Your task to perform on an android device: Search for seafood restaurants on Google Maps Image 0: 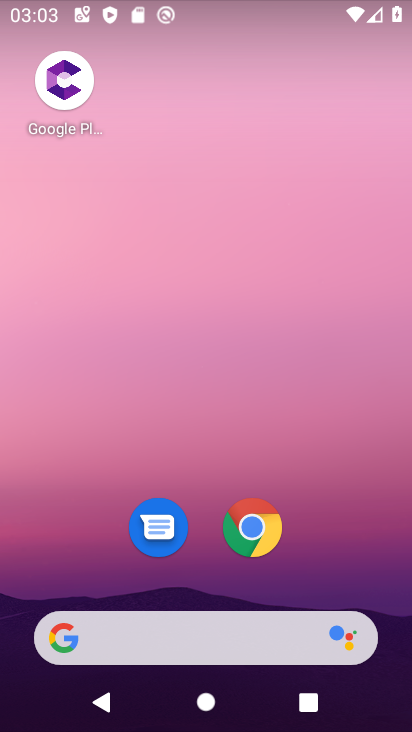
Step 0: drag from (357, 523) to (327, 16)
Your task to perform on an android device: Search for seafood restaurants on Google Maps Image 1: 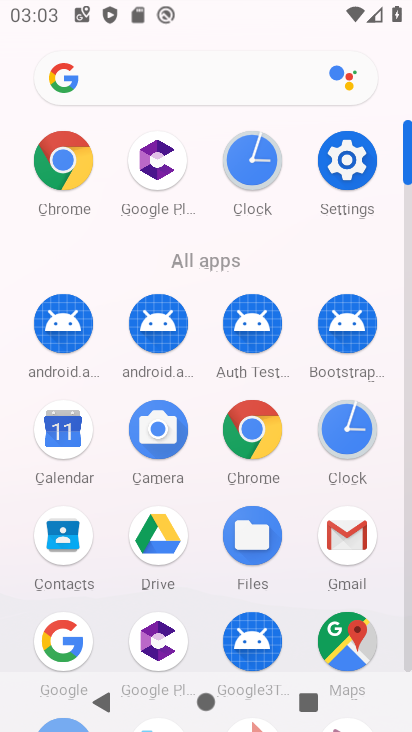
Step 1: click (348, 641)
Your task to perform on an android device: Search for seafood restaurants on Google Maps Image 2: 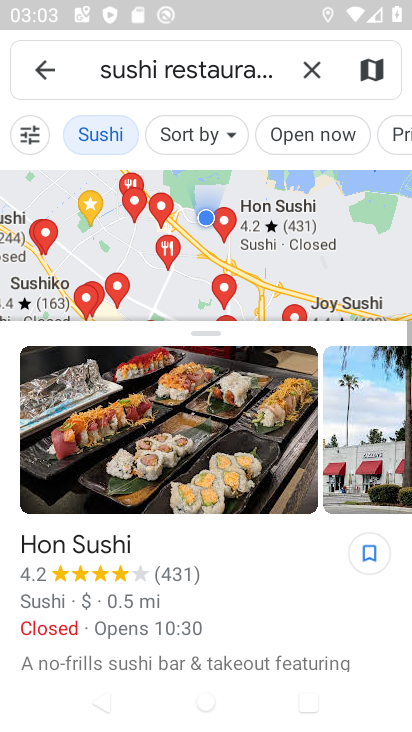
Step 2: click (311, 72)
Your task to perform on an android device: Search for seafood restaurants on Google Maps Image 3: 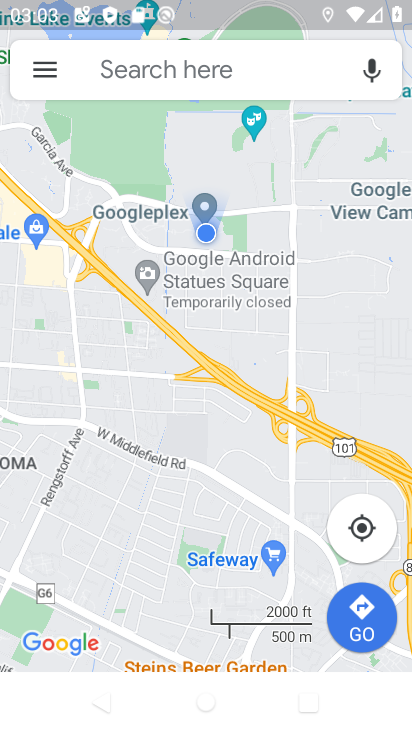
Step 3: click (98, 72)
Your task to perform on an android device: Search for seafood restaurants on Google Maps Image 4: 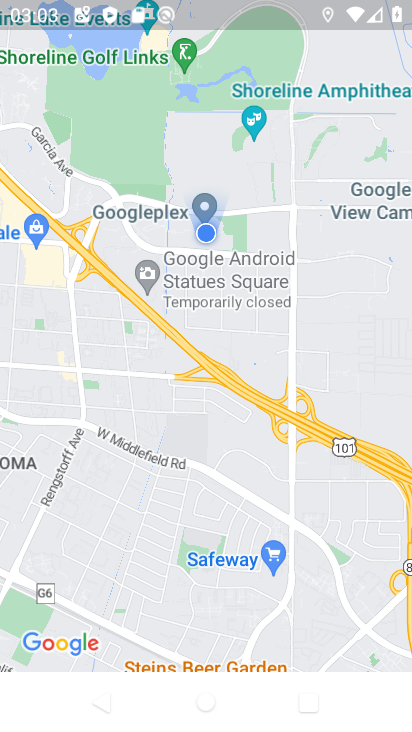
Step 4: click (132, 111)
Your task to perform on an android device: Search for seafood restaurants on Google Maps Image 5: 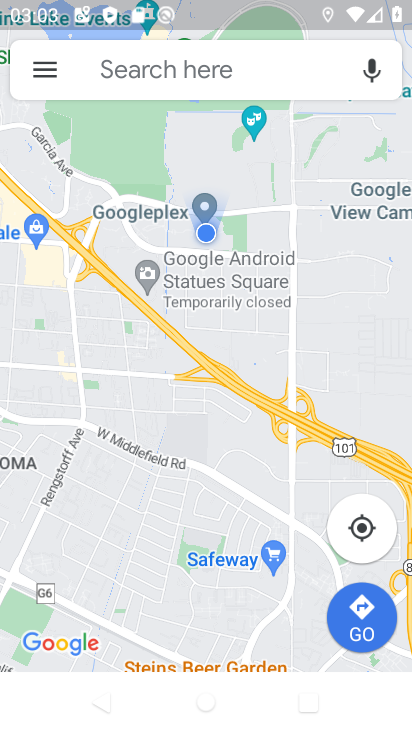
Step 5: click (137, 68)
Your task to perform on an android device: Search for seafood restaurants on Google Maps Image 6: 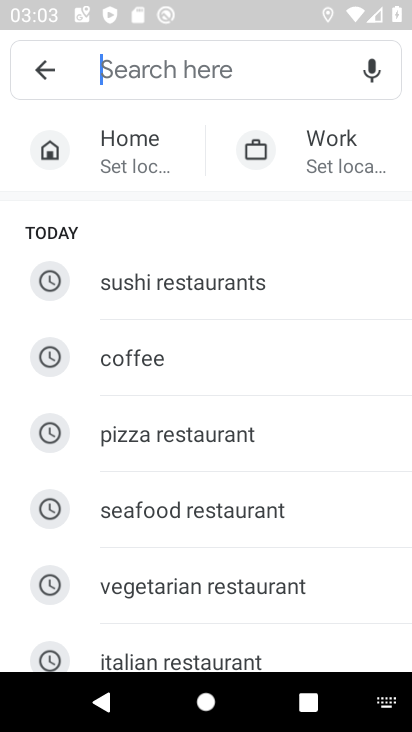
Step 6: type "seafood restaurant"
Your task to perform on an android device: Search for seafood restaurants on Google Maps Image 7: 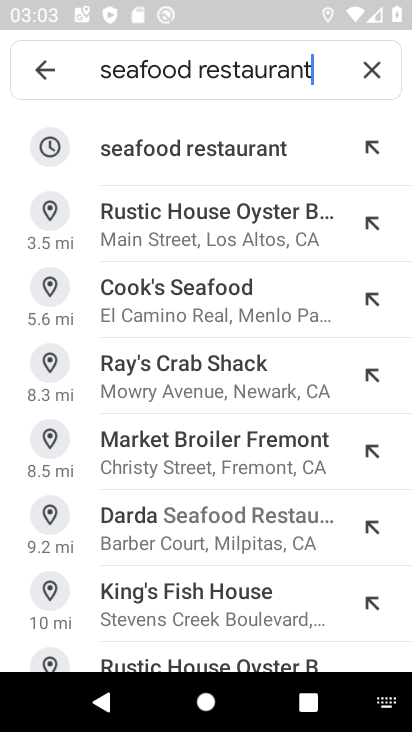
Step 7: click (155, 154)
Your task to perform on an android device: Search for seafood restaurants on Google Maps Image 8: 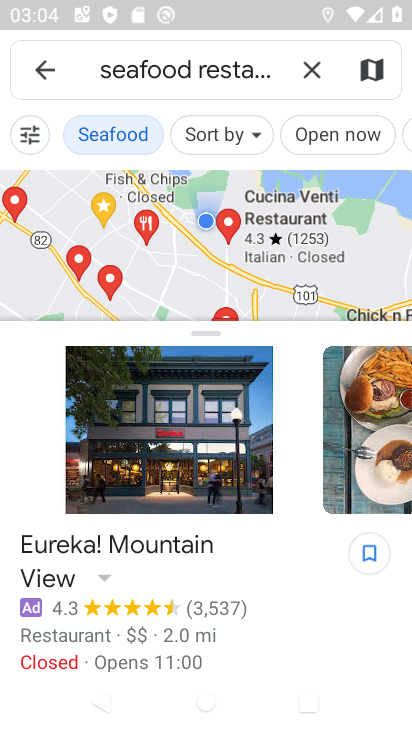
Step 8: task complete